Your task to perform on an android device: toggle notification dots Image 0: 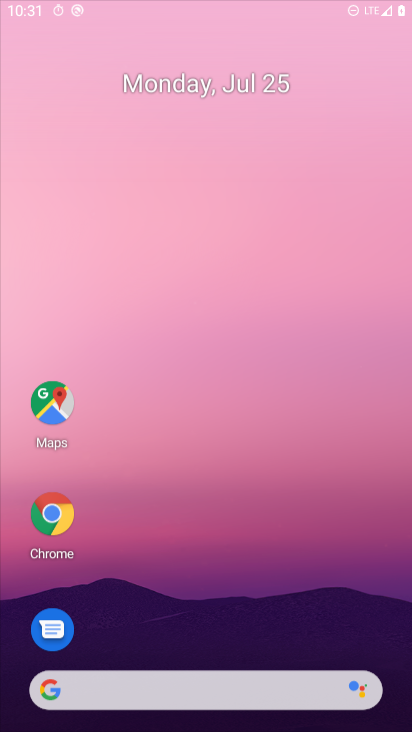
Step 0: drag from (6, 679) to (220, 126)
Your task to perform on an android device: toggle notification dots Image 1: 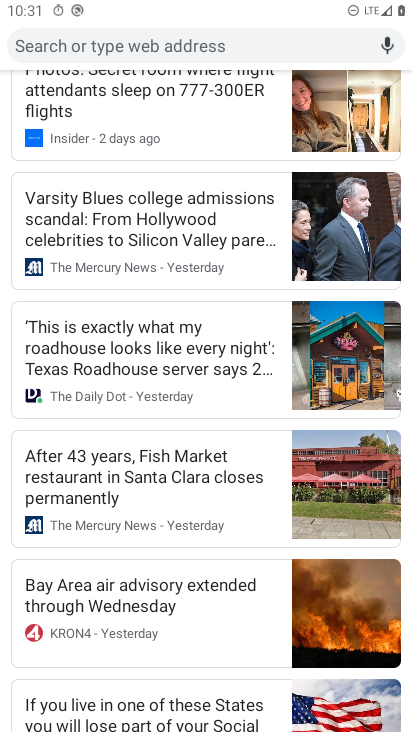
Step 1: press home button
Your task to perform on an android device: toggle notification dots Image 2: 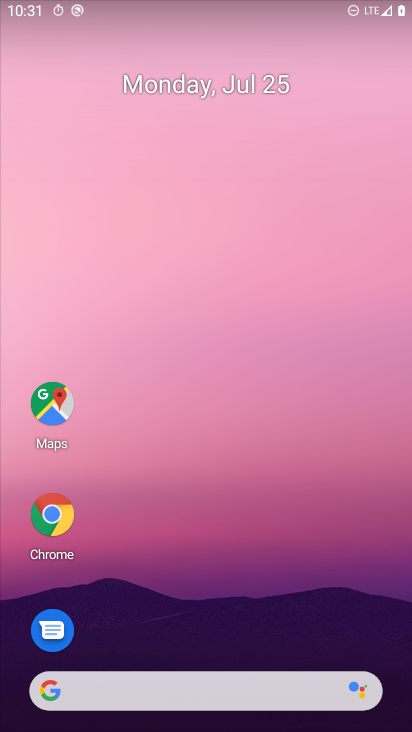
Step 2: drag from (7, 726) to (216, 4)
Your task to perform on an android device: toggle notification dots Image 3: 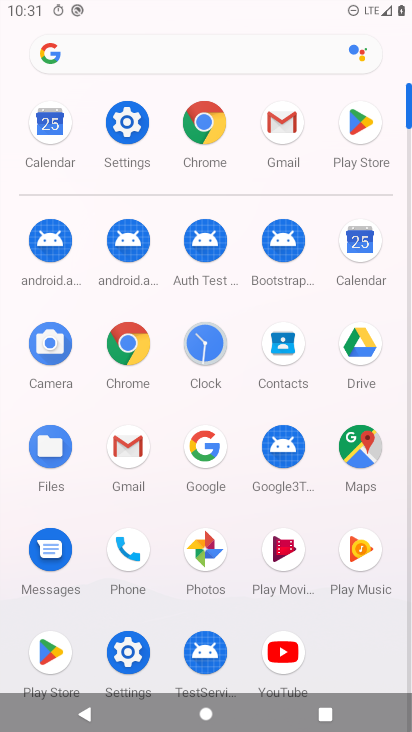
Step 3: click (133, 652)
Your task to perform on an android device: toggle notification dots Image 4: 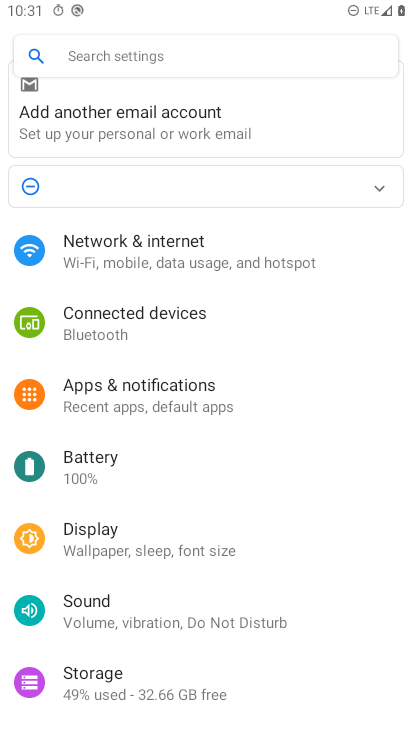
Step 4: click (133, 383)
Your task to perform on an android device: toggle notification dots Image 5: 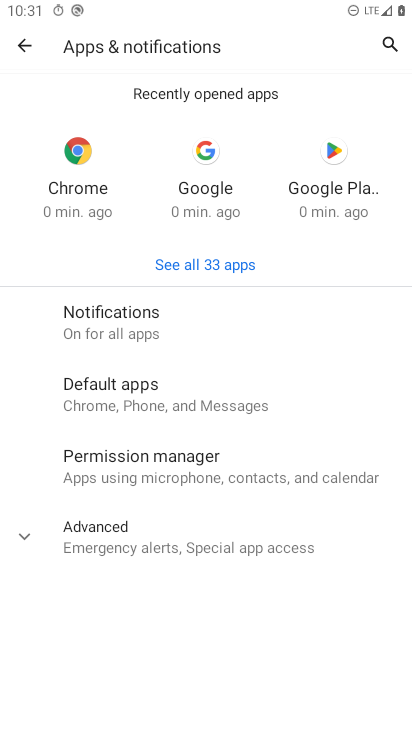
Step 5: click (108, 527)
Your task to perform on an android device: toggle notification dots Image 6: 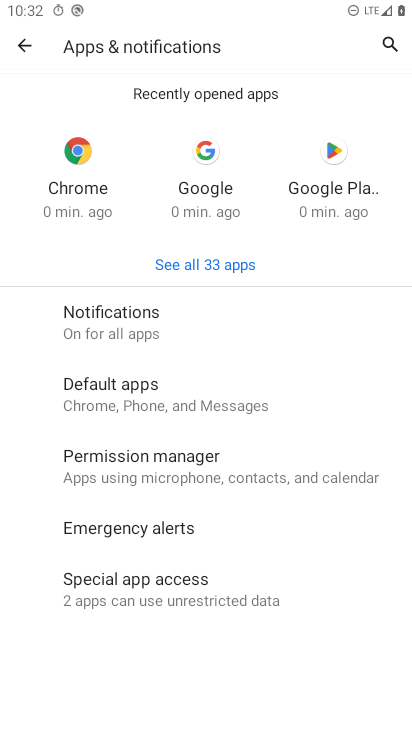
Step 6: click (126, 326)
Your task to perform on an android device: toggle notification dots Image 7: 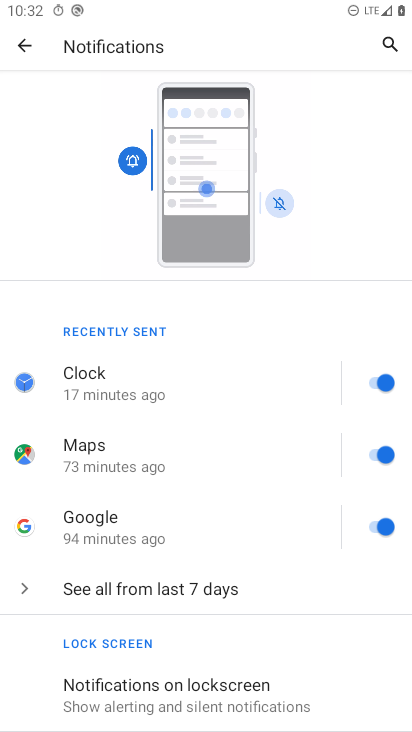
Step 7: drag from (267, 442) to (267, 344)
Your task to perform on an android device: toggle notification dots Image 8: 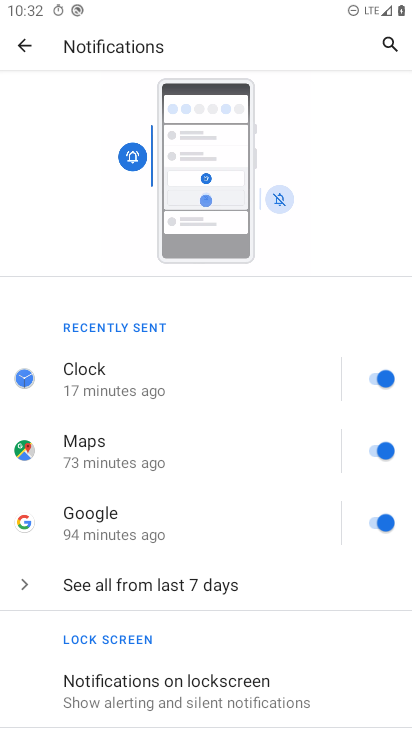
Step 8: drag from (318, 696) to (318, 398)
Your task to perform on an android device: toggle notification dots Image 9: 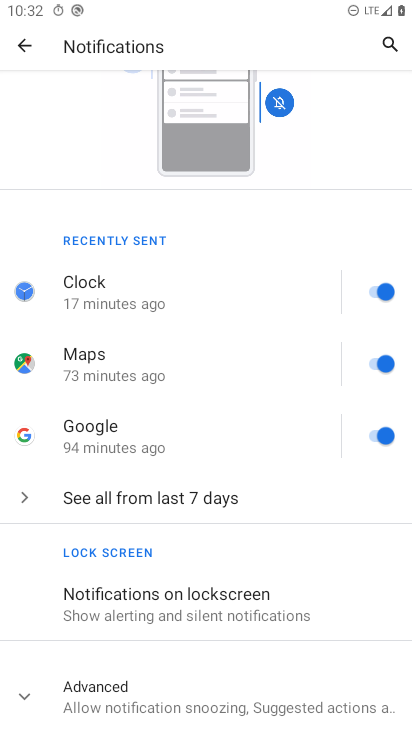
Step 9: click (103, 692)
Your task to perform on an android device: toggle notification dots Image 10: 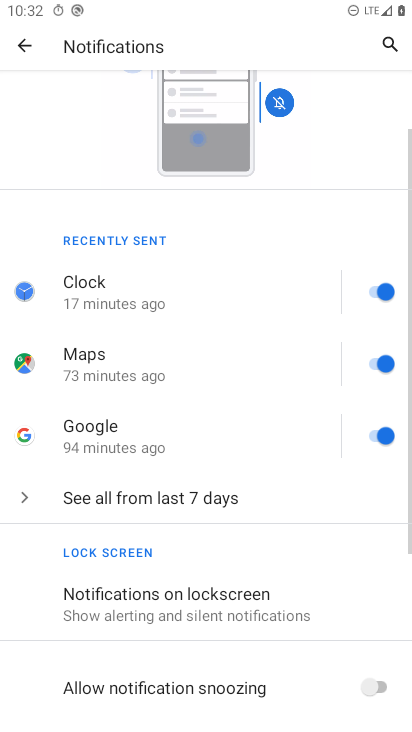
Step 10: task complete